Your task to perform on an android device: empty trash in the gmail app Image 0: 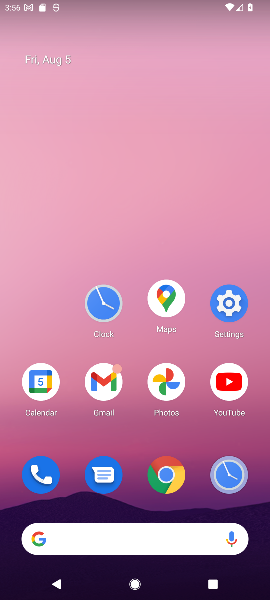
Step 0: click (108, 385)
Your task to perform on an android device: empty trash in the gmail app Image 1: 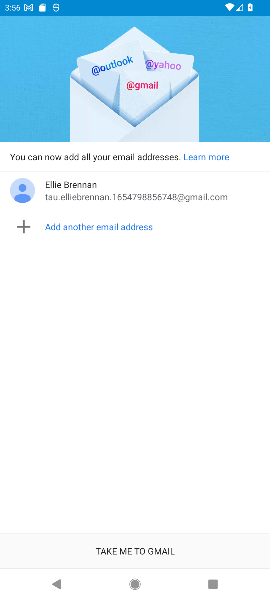
Step 1: click (129, 547)
Your task to perform on an android device: empty trash in the gmail app Image 2: 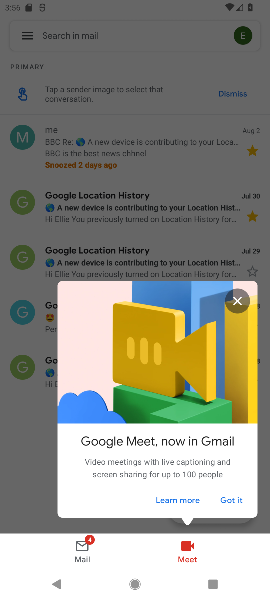
Step 2: click (236, 302)
Your task to perform on an android device: empty trash in the gmail app Image 3: 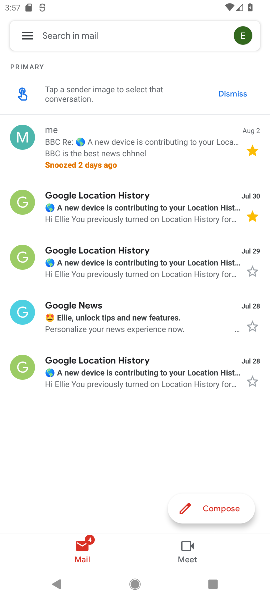
Step 3: click (31, 37)
Your task to perform on an android device: empty trash in the gmail app Image 4: 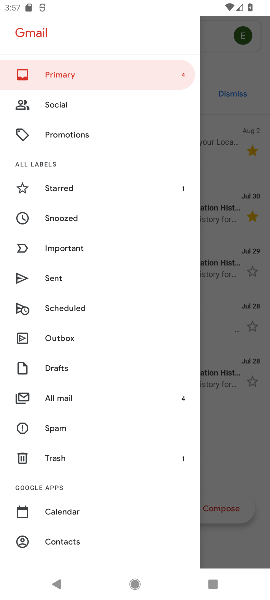
Step 4: click (45, 457)
Your task to perform on an android device: empty trash in the gmail app Image 5: 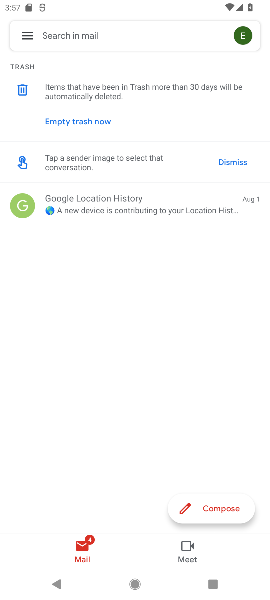
Step 5: click (17, 91)
Your task to perform on an android device: empty trash in the gmail app Image 6: 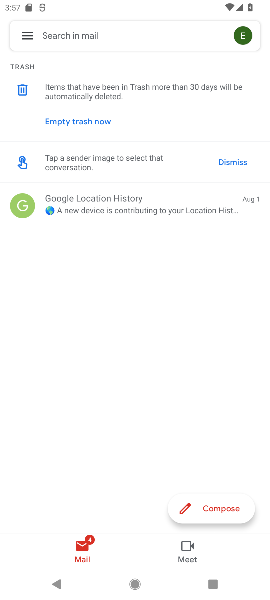
Step 6: click (67, 122)
Your task to perform on an android device: empty trash in the gmail app Image 7: 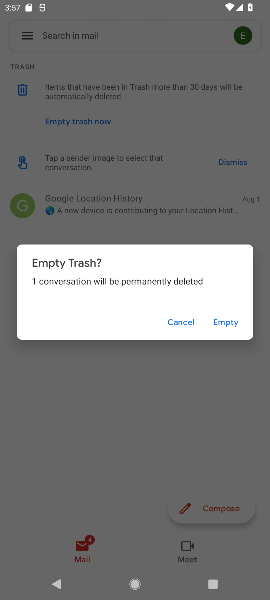
Step 7: click (220, 321)
Your task to perform on an android device: empty trash in the gmail app Image 8: 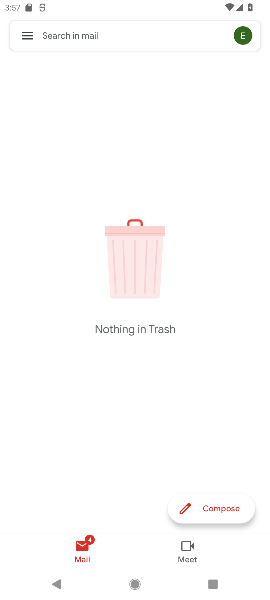
Step 8: task complete